Your task to perform on an android device: Go to calendar. Show me events next week Image 0: 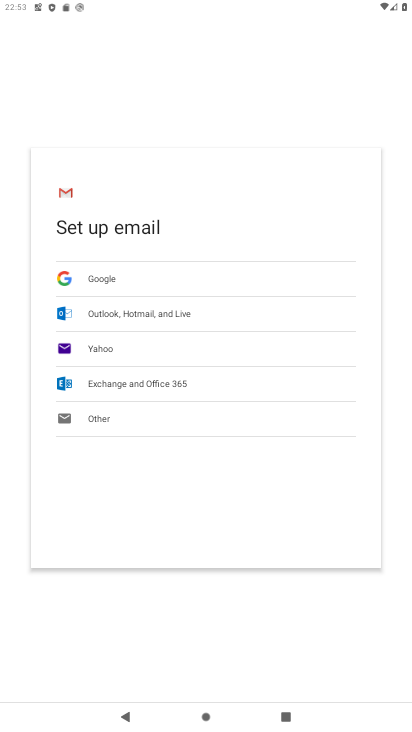
Step 0: press home button
Your task to perform on an android device: Go to calendar. Show me events next week Image 1: 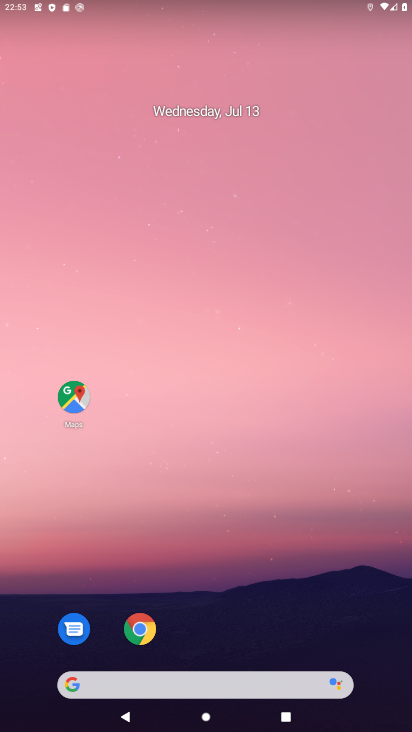
Step 1: drag from (214, 597) to (266, 220)
Your task to perform on an android device: Go to calendar. Show me events next week Image 2: 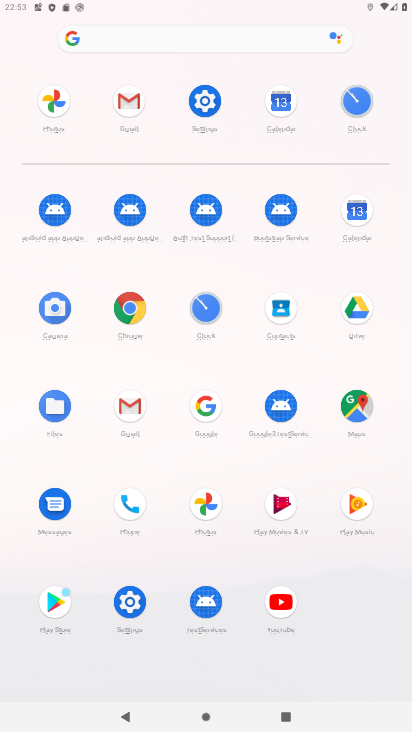
Step 2: click (351, 219)
Your task to perform on an android device: Go to calendar. Show me events next week Image 3: 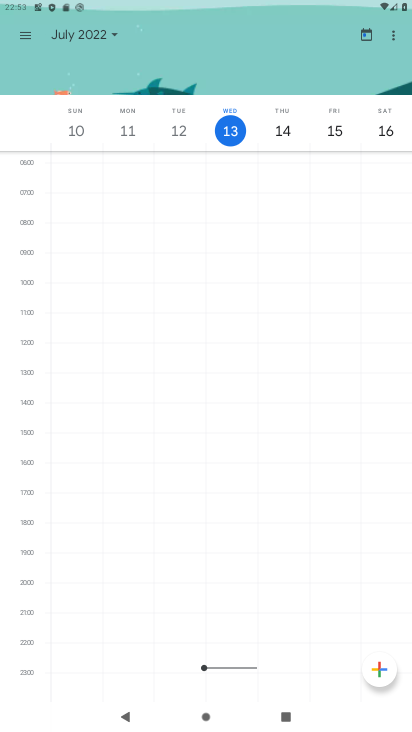
Step 3: click (19, 21)
Your task to perform on an android device: Go to calendar. Show me events next week Image 4: 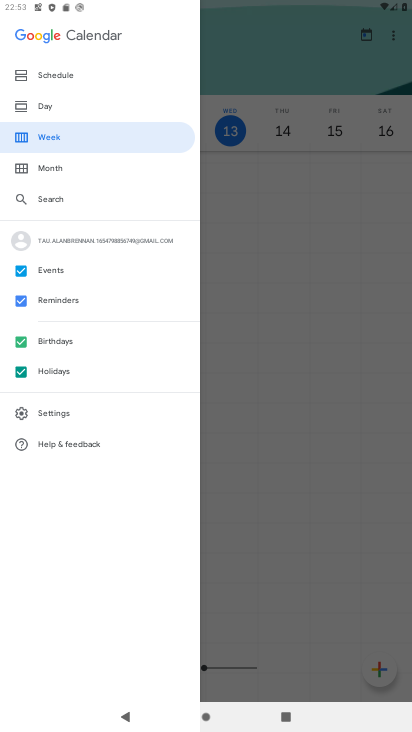
Step 4: click (24, 128)
Your task to perform on an android device: Go to calendar. Show me events next week Image 5: 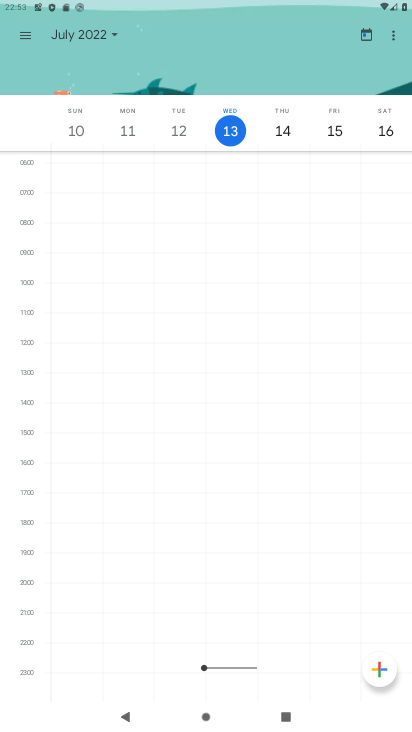
Step 5: drag from (379, 133) to (35, 136)
Your task to perform on an android device: Go to calendar. Show me events next week Image 6: 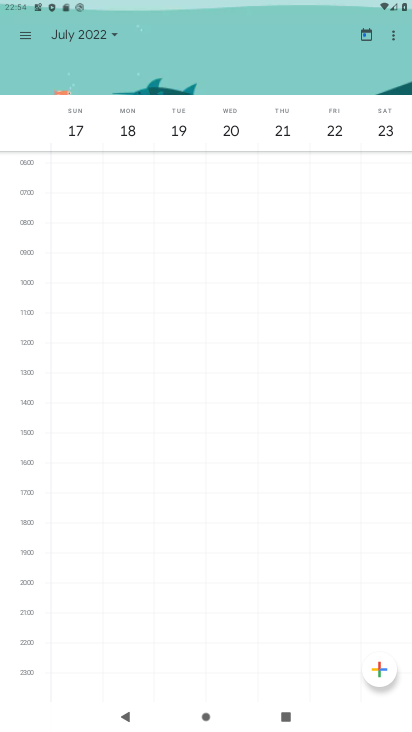
Step 6: click (72, 130)
Your task to perform on an android device: Go to calendar. Show me events next week Image 7: 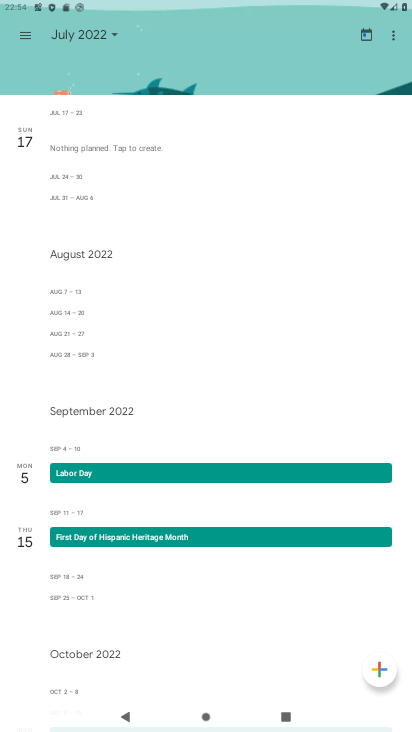
Step 7: task complete